Your task to perform on an android device: toggle javascript in the chrome app Image 0: 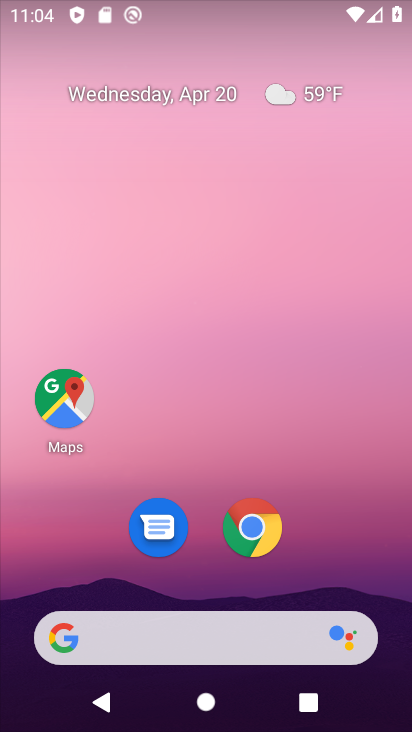
Step 0: click (267, 545)
Your task to perform on an android device: toggle javascript in the chrome app Image 1: 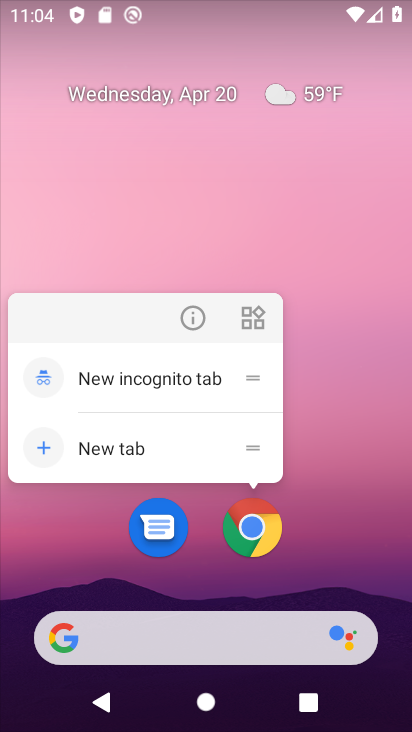
Step 1: click (270, 547)
Your task to perform on an android device: toggle javascript in the chrome app Image 2: 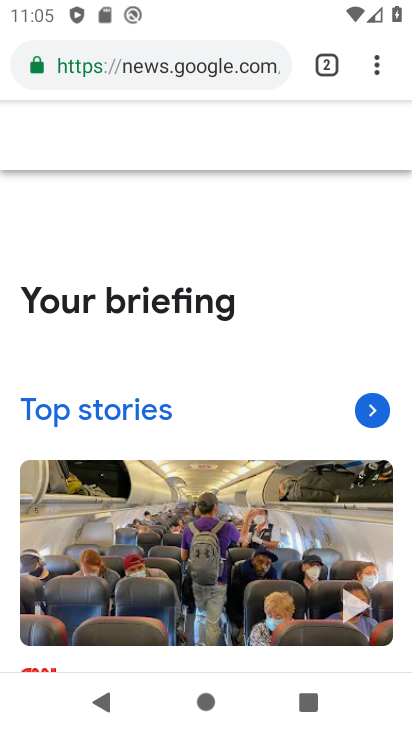
Step 2: drag from (385, 73) to (182, 569)
Your task to perform on an android device: toggle javascript in the chrome app Image 3: 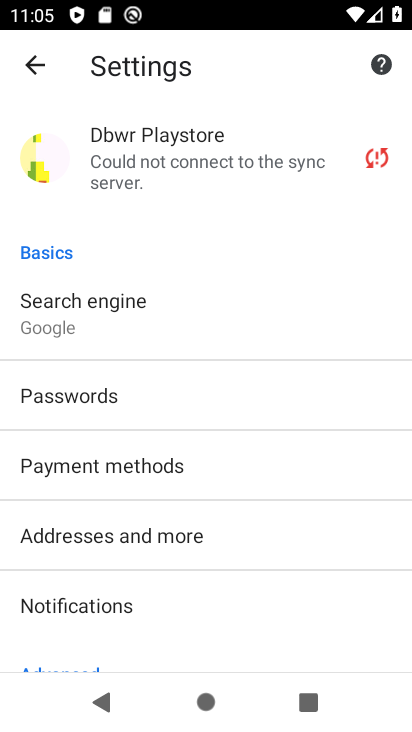
Step 3: drag from (235, 619) to (249, 384)
Your task to perform on an android device: toggle javascript in the chrome app Image 4: 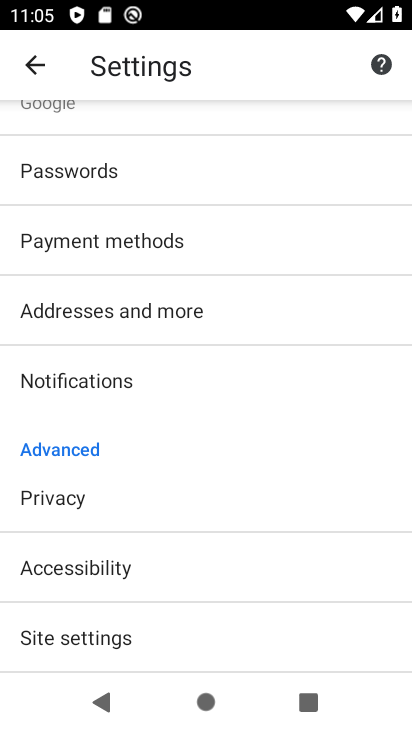
Step 4: drag from (260, 609) to (280, 296)
Your task to perform on an android device: toggle javascript in the chrome app Image 5: 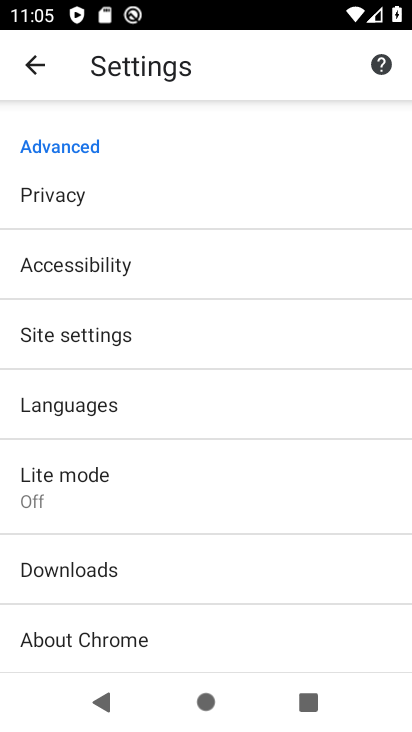
Step 5: drag from (233, 591) to (270, 279)
Your task to perform on an android device: toggle javascript in the chrome app Image 6: 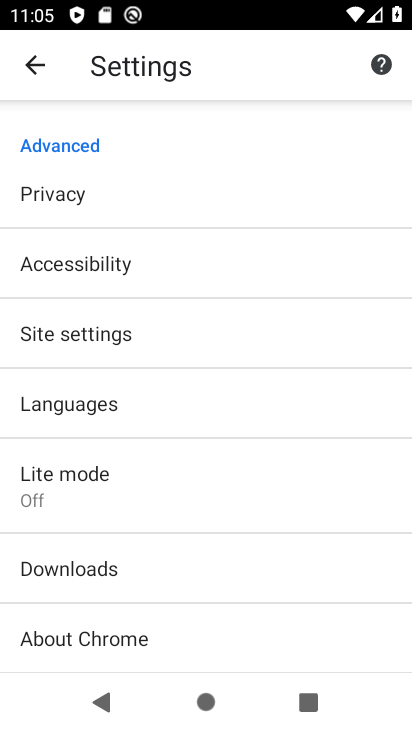
Step 6: click (145, 330)
Your task to perform on an android device: toggle javascript in the chrome app Image 7: 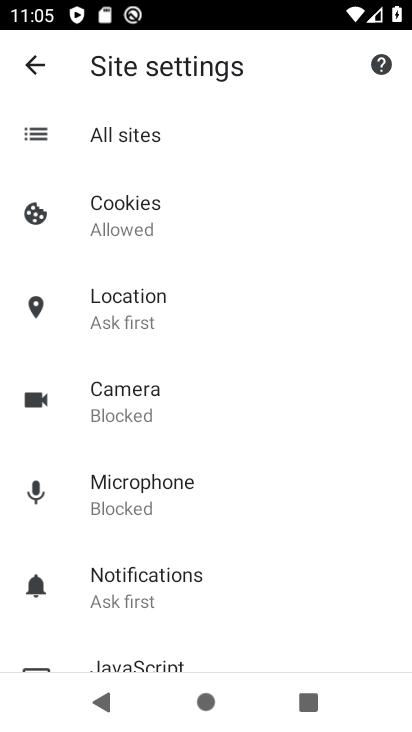
Step 7: drag from (197, 589) to (196, 426)
Your task to perform on an android device: toggle javascript in the chrome app Image 8: 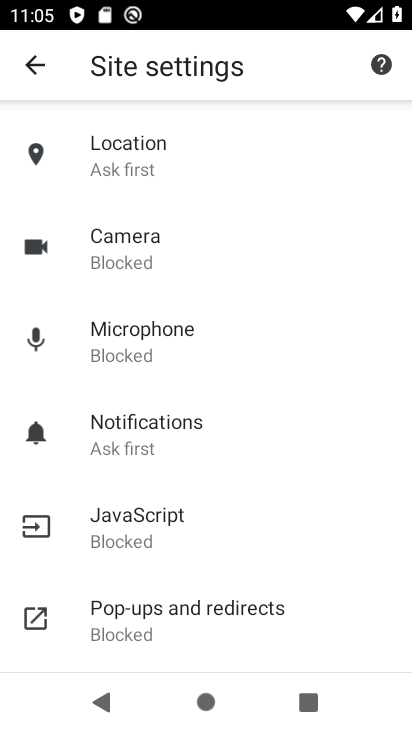
Step 8: click (179, 515)
Your task to perform on an android device: toggle javascript in the chrome app Image 9: 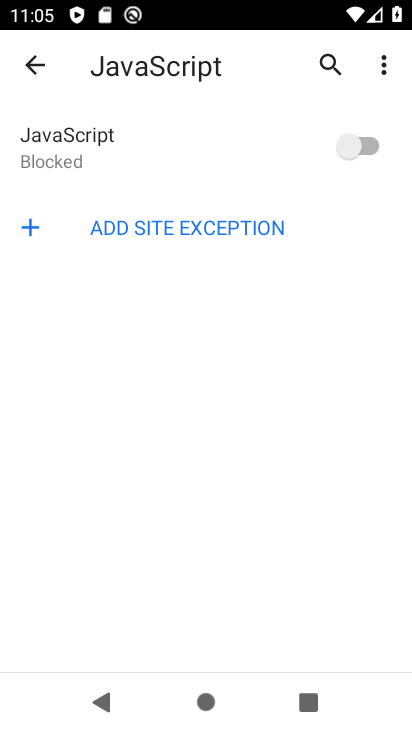
Step 9: click (371, 144)
Your task to perform on an android device: toggle javascript in the chrome app Image 10: 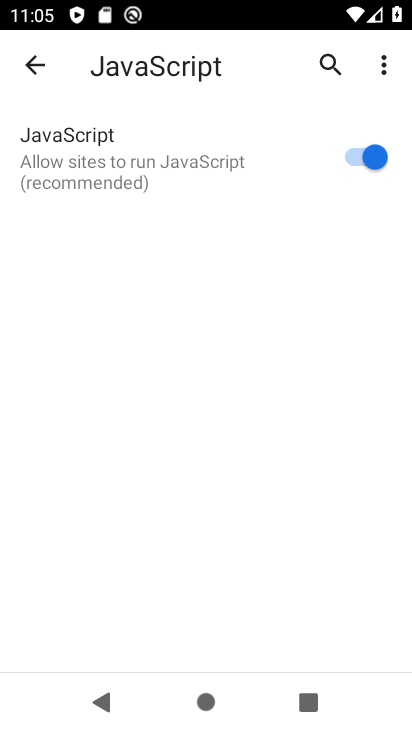
Step 10: task complete